Your task to perform on an android device: refresh tabs in the chrome app Image 0: 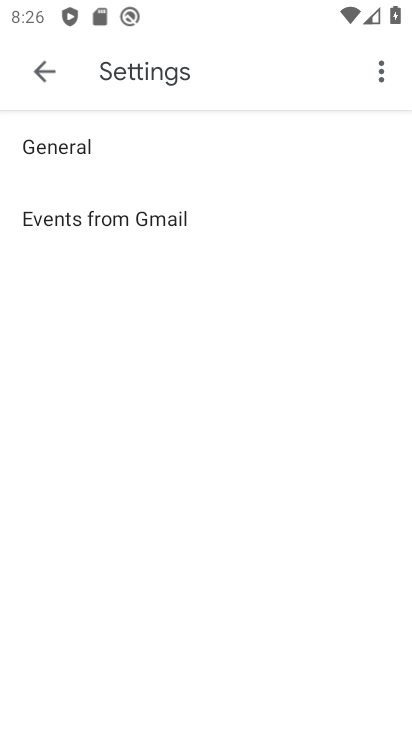
Step 0: press back button
Your task to perform on an android device: refresh tabs in the chrome app Image 1: 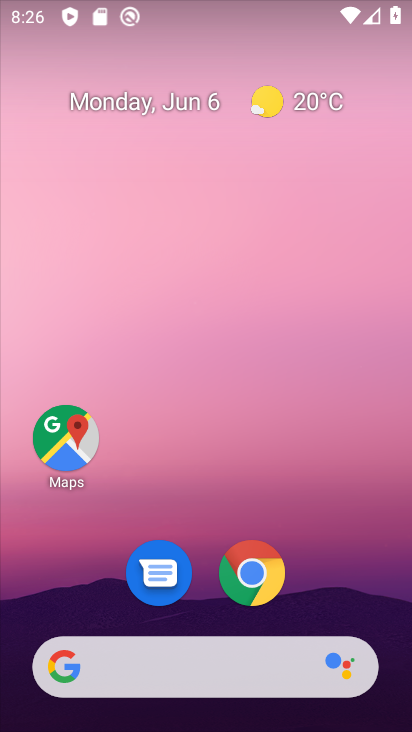
Step 1: click (259, 556)
Your task to perform on an android device: refresh tabs in the chrome app Image 2: 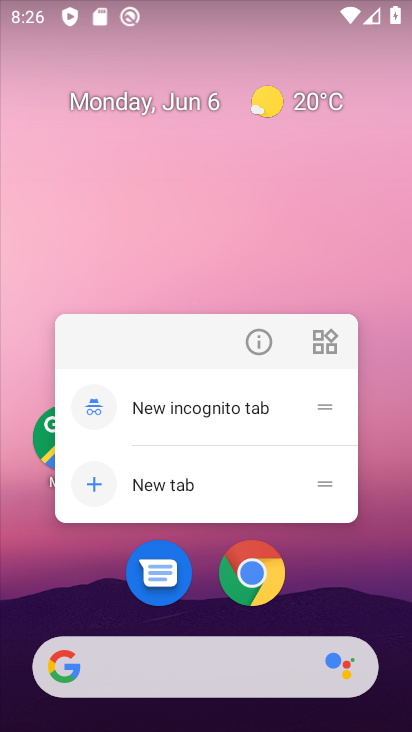
Step 2: click (254, 567)
Your task to perform on an android device: refresh tabs in the chrome app Image 3: 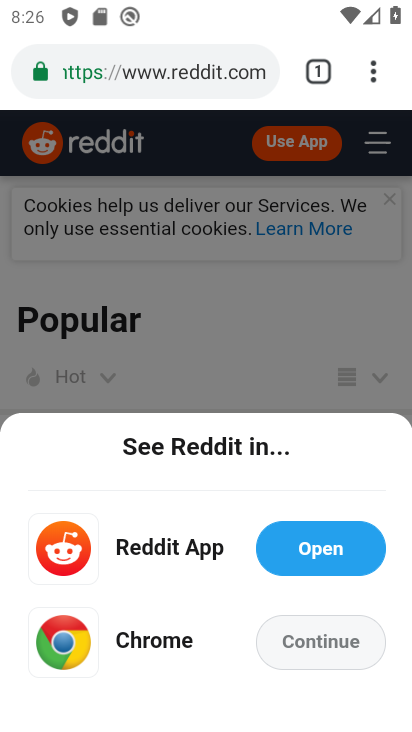
Step 3: click (373, 64)
Your task to perform on an android device: refresh tabs in the chrome app Image 4: 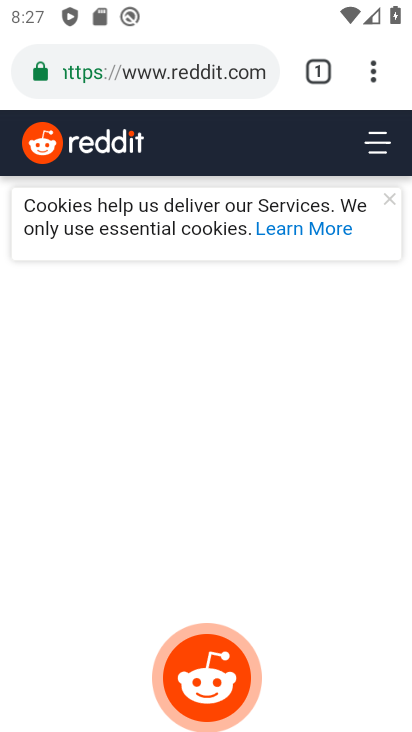
Step 4: task complete